Your task to perform on an android device: turn on wifi Image 0: 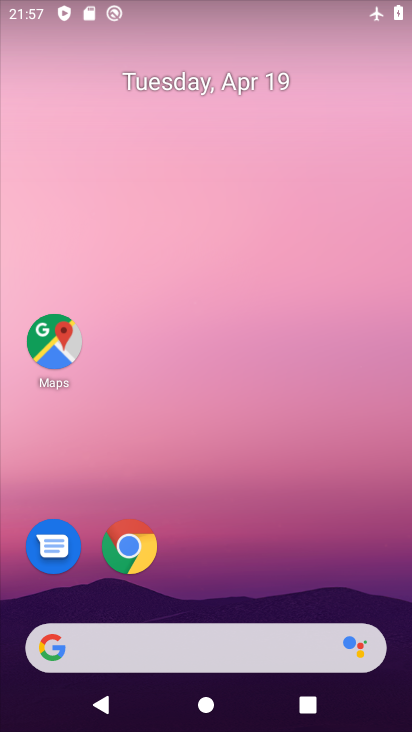
Step 0: drag from (216, 598) to (209, 4)
Your task to perform on an android device: turn on wifi Image 1: 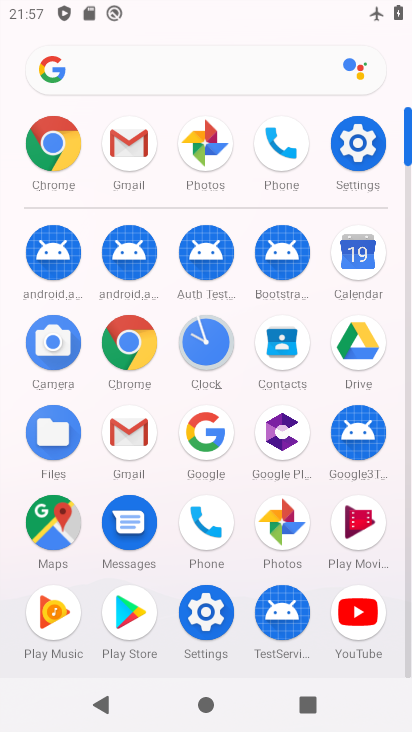
Step 1: click (346, 146)
Your task to perform on an android device: turn on wifi Image 2: 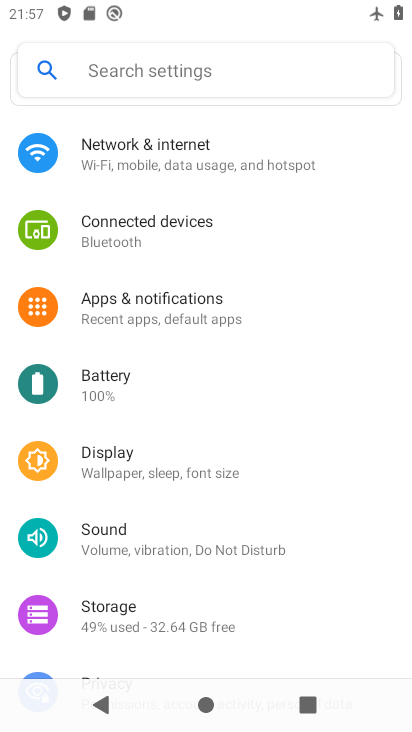
Step 2: click (158, 164)
Your task to perform on an android device: turn on wifi Image 3: 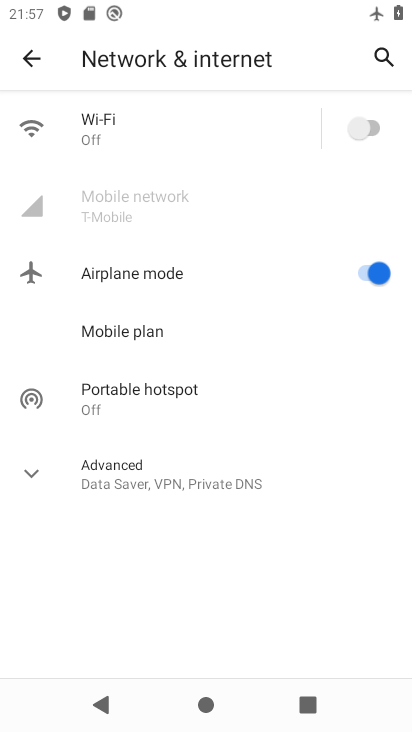
Step 3: click (373, 132)
Your task to perform on an android device: turn on wifi Image 4: 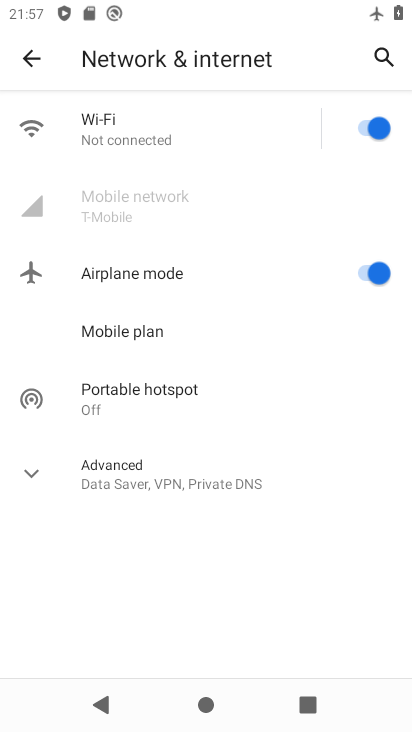
Step 4: task complete